Your task to perform on an android device: open app "Gmail" Image 0: 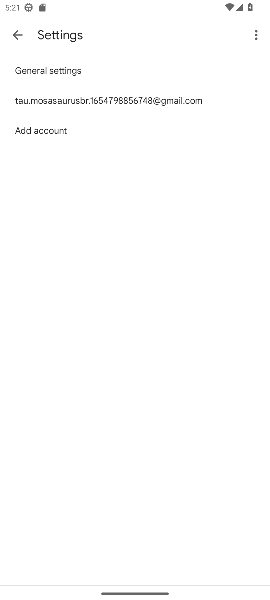
Step 0: press home button
Your task to perform on an android device: open app "Gmail" Image 1: 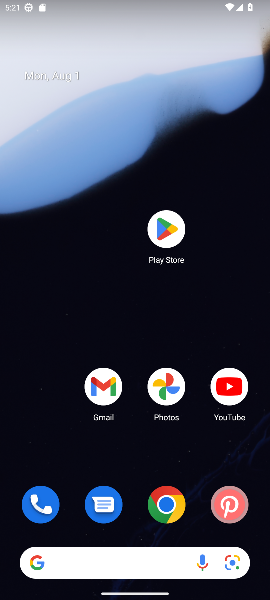
Step 1: click (171, 228)
Your task to perform on an android device: open app "Gmail" Image 2: 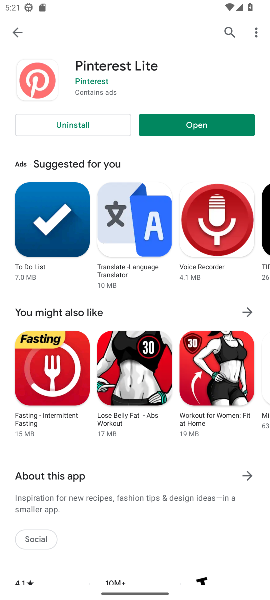
Step 2: click (226, 30)
Your task to perform on an android device: open app "Gmail" Image 3: 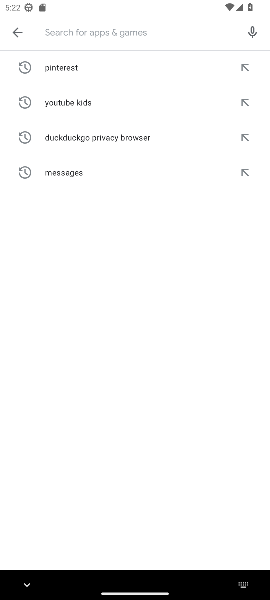
Step 3: type "Gmail"
Your task to perform on an android device: open app "Gmail" Image 4: 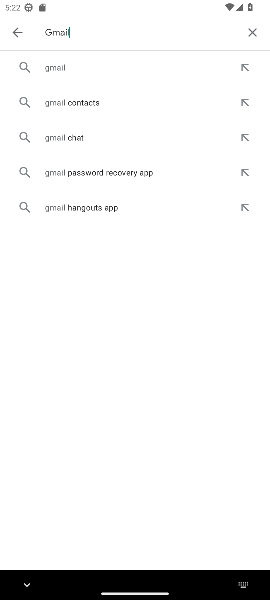
Step 4: click (51, 69)
Your task to perform on an android device: open app "Gmail" Image 5: 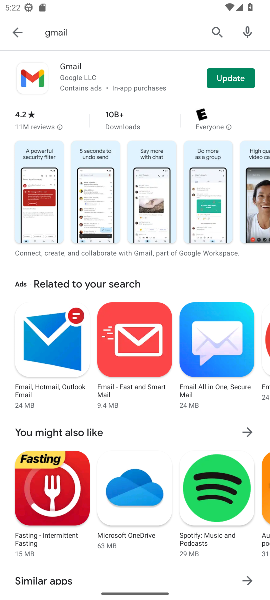
Step 5: click (69, 72)
Your task to perform on an android device: open app "Gmail" Image 6: 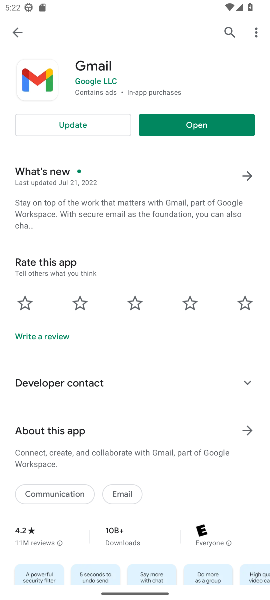
Step 6: click (199, 124)
Your task to perform on an android device: open app "Gmail" Image 7: 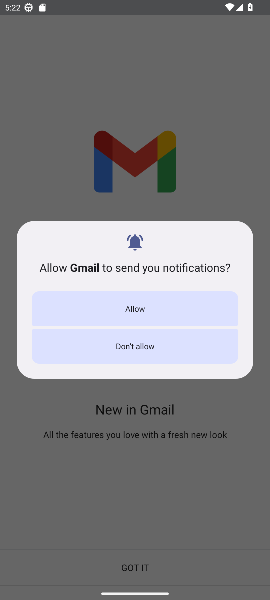
Step 7: click (126, 341)
Your task to perform on an android device: open app "Gmail" Image 8: 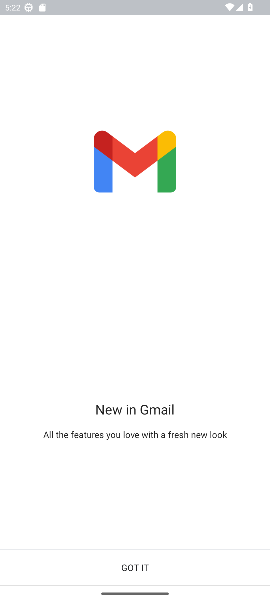
Step 8: task complete